Your task to perform on an android device: What's on my calendar tomorrow? Image 0: 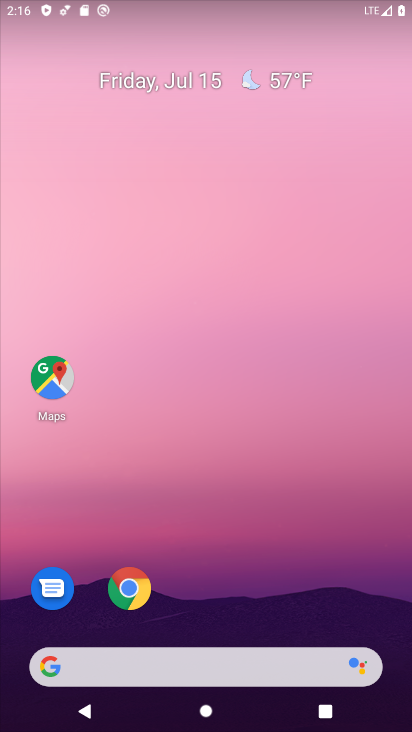
Step 0: drag from (358, 636) to (189, 33)
Your task to perform on an android device: What's on my calendar tomorrow? Image 1: 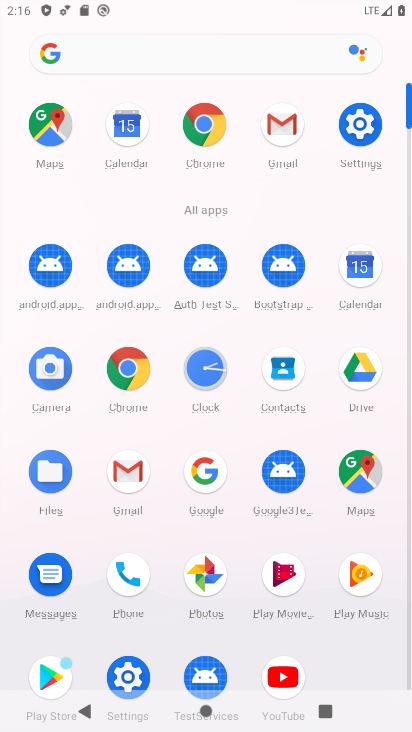
Step 1: click (357, 265)
Your task to perform on an android device: What's on my calendar tomorrow? Image 2: 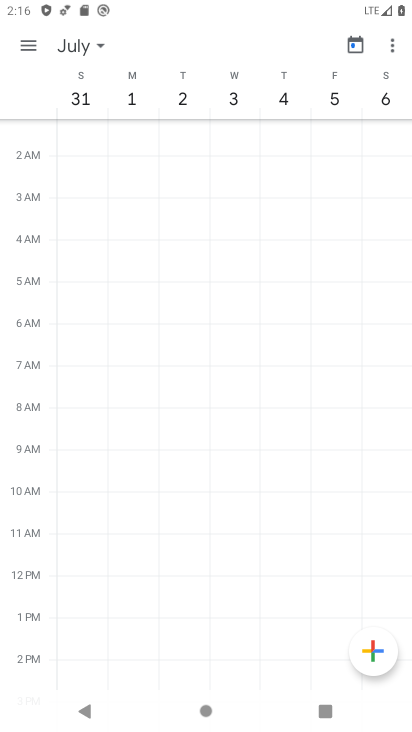
Step 2: click (36, 47)
Your task to perform on an android device: What's on my calendar tomorrow? Image 3: 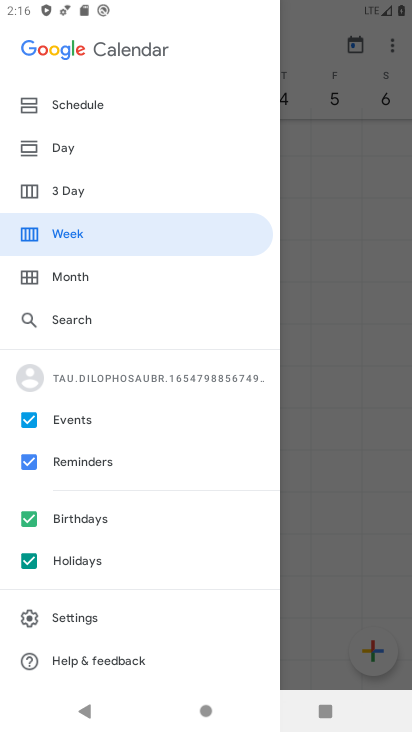
Step 3: click (58, 149)
Your task to perform on an android device: What's on my calendar tomorrow? Image 4: 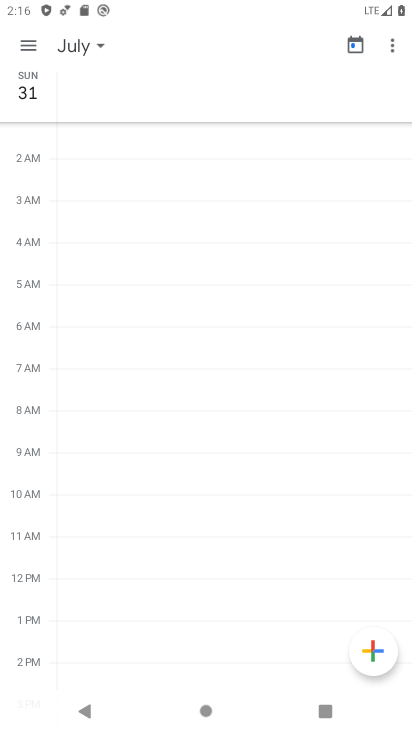
Step 4: click (94, 36)
Your task to perform on an android device: What's on my calendar tomorrow? Image 5: 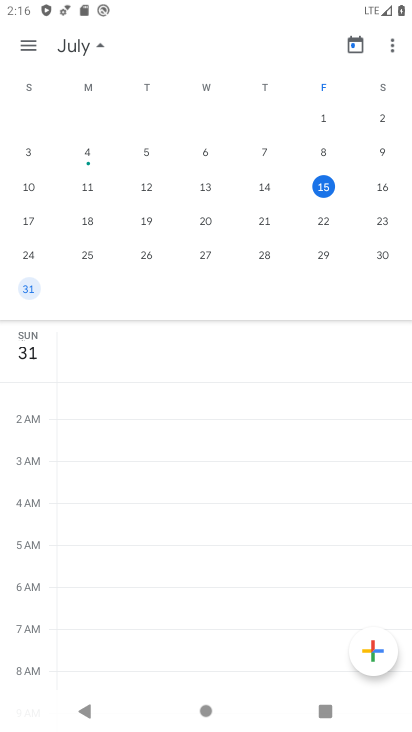
Step 5: click (379, 185)
Your task to perform on an android device: What's on my calendar tomorrow? Image 6: 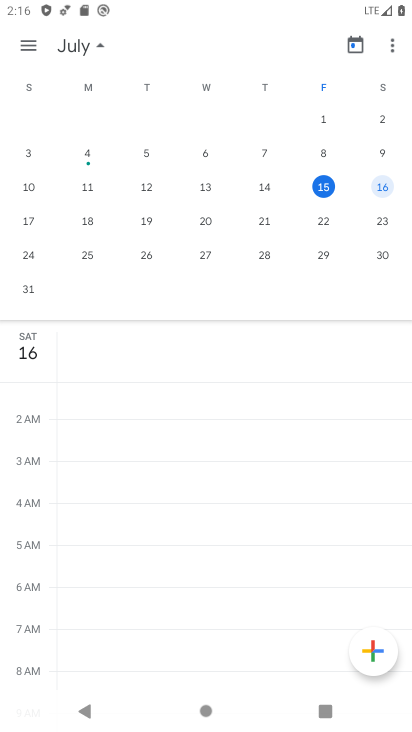
Step 6: task complete